Your task to perform on an android device: toggle airplane mode Image 0: 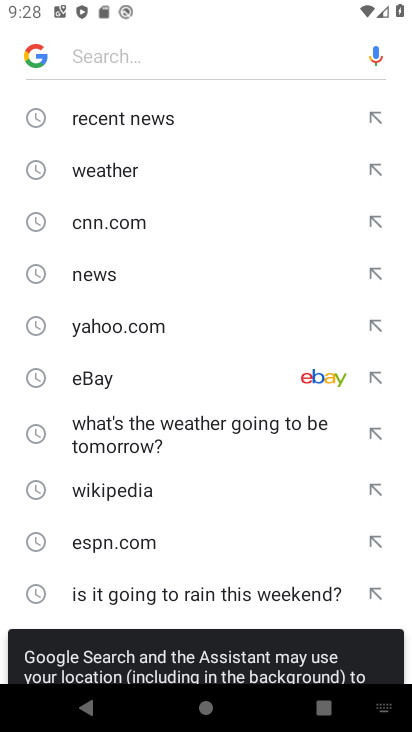
Step 0: press home button
Your task to perform on an android device: toggle airplane mode Image 1: 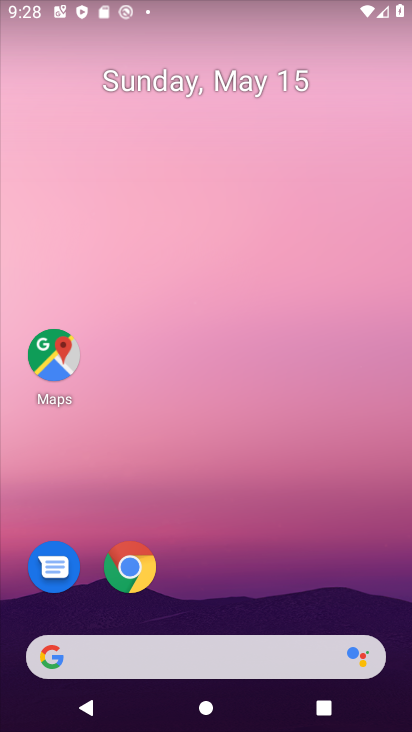
Step 1: drag from (324, 13) to (269, 487)
Your task to perform on an android device: toggle airplane mode Image 2: 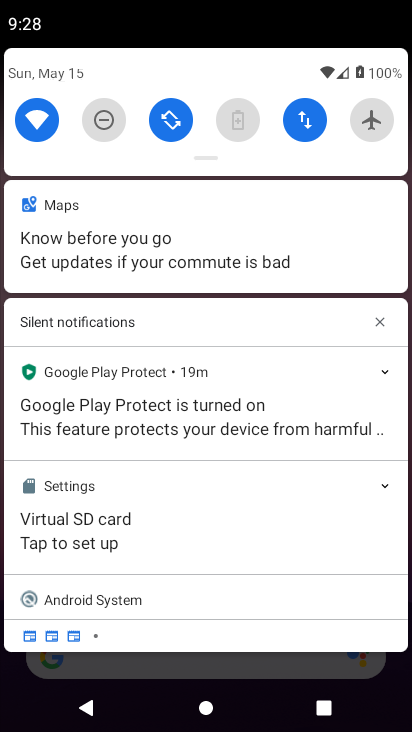
Step 2: click (370, 118)
Your task to perform on an android device: toggle airplane mode Image 3: 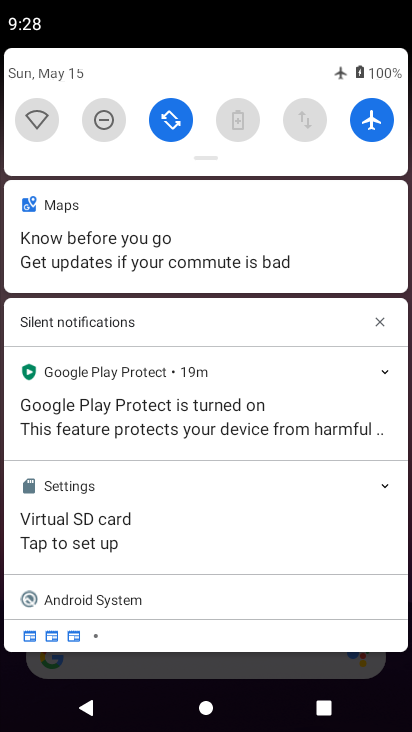
Step 3: task complete